Your task to perform on an android device: delete the emails in spam in the gmail app Image 0: 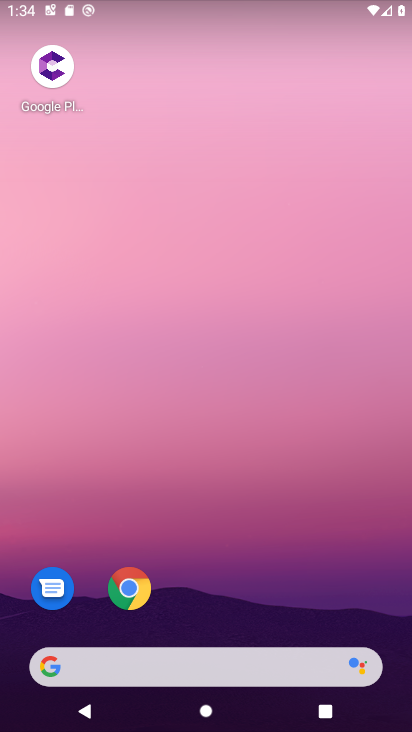
Step 0: drag from (304, 406) to (364, 45)
Your task to perform on an android device: delete the emails in spam in the gmail app Image 1: 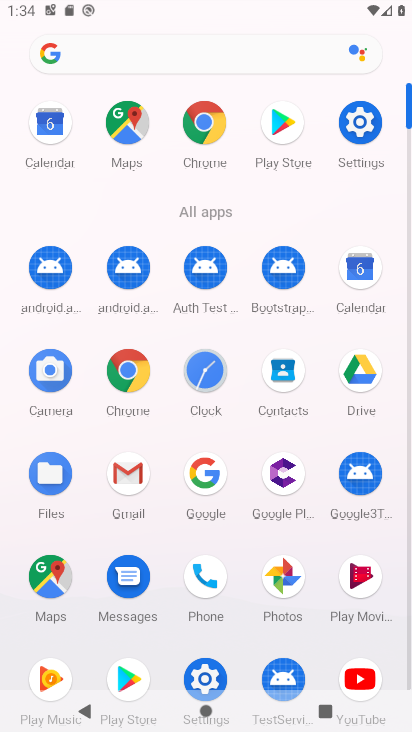
Step 1: click (133, 476)
Your task to perform on an android device: delete the emails in spam in the gmail app Image 2: 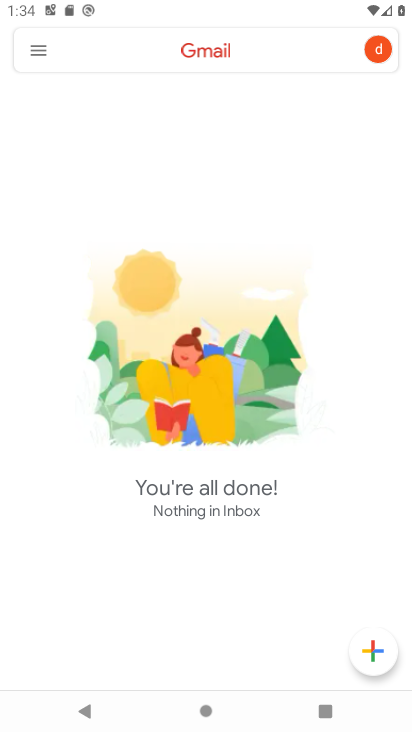
Step 2: click (29, 55)
Your task to perform on an android device: delete the emails in spam in the gmail app Image 3: 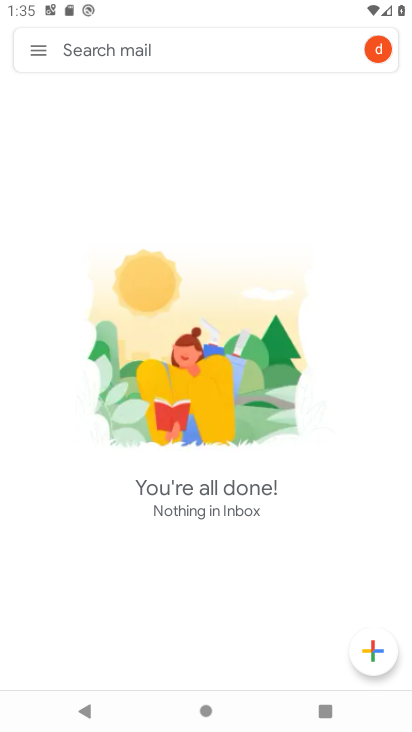
Step 3: click (27, 54)
Your task to perform on an android device: delete the emails in spam in the gmail app Image 4: 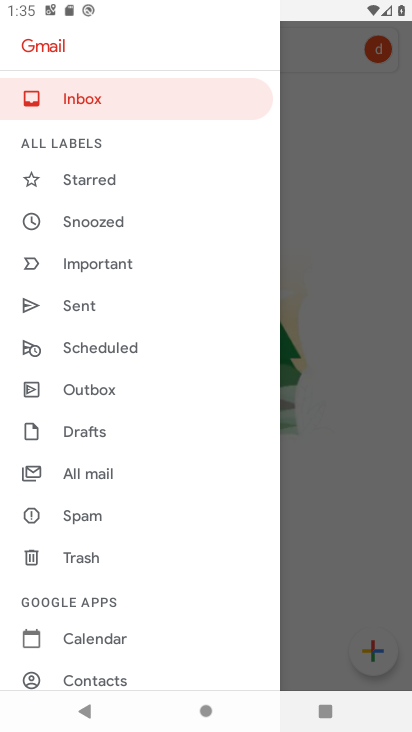
Step 4: click (110, 512)
Your task to perform on an android device: delete the emails in spam in the gmail app Image 5: 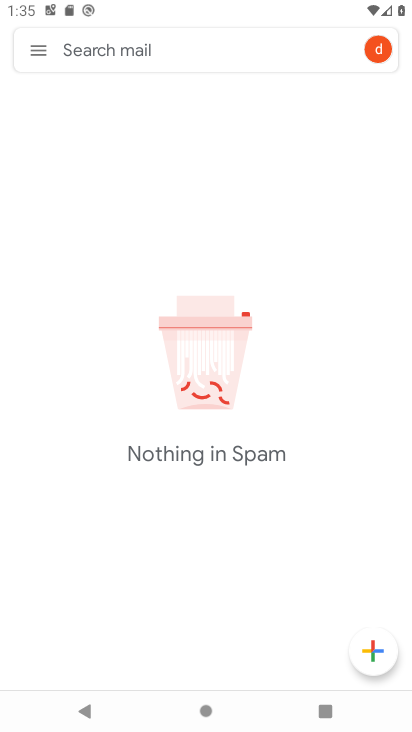
Step 5: task complete